Your task to perform on an android device: Check the news Image 0: 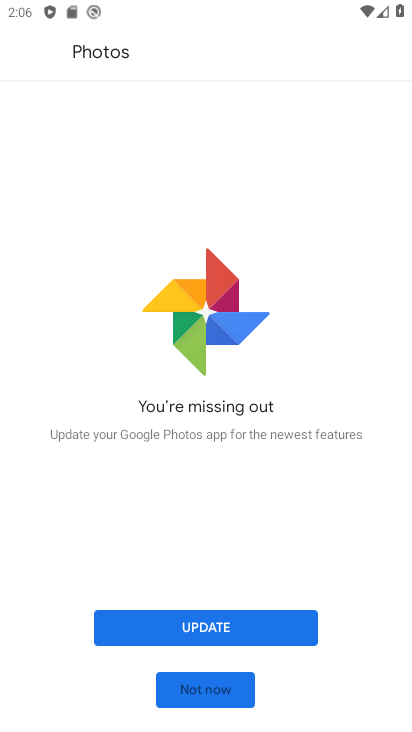
Step 0: press back button
Your task to perform on an android device: Check the news Image 1: 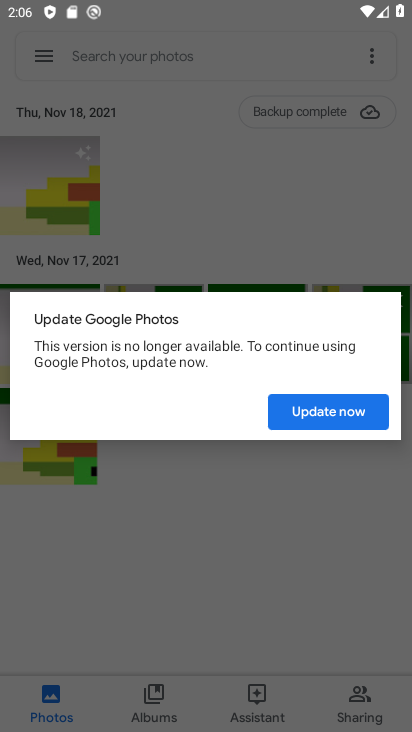
Step 1: task complete